Your task to perform on an android device: Open Amazon Image 0: 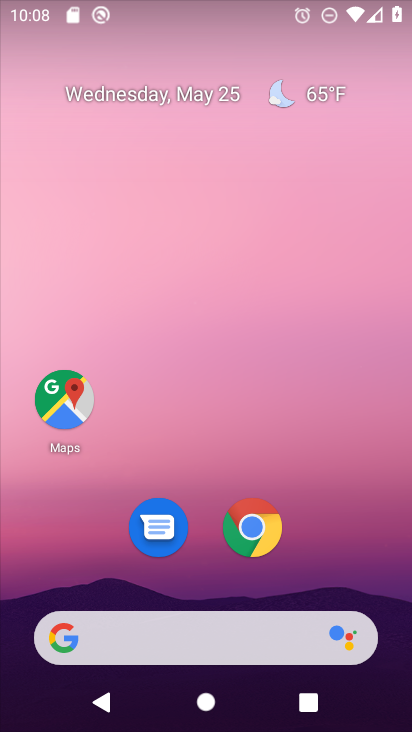
Step 0: click (250, 528)
Your task to perform on an android device: Open Amazon Image 1: 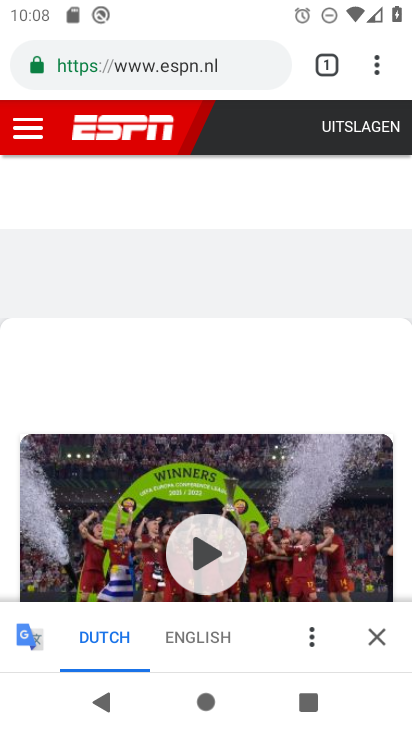
Step 1: click (268, 60)
Your task to perform on an android device: Open Amazon Image 2: 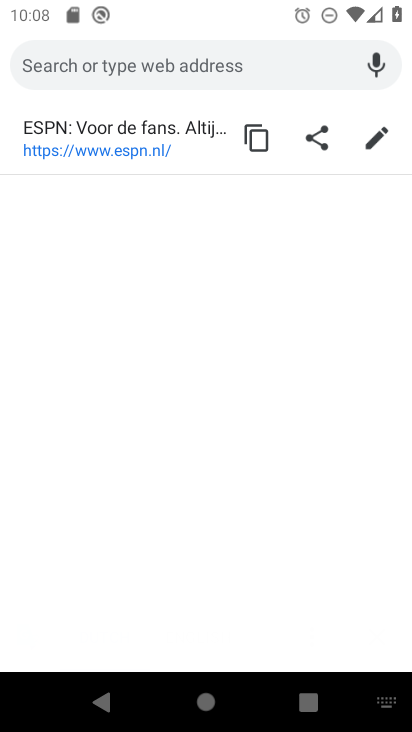
Step 2: type "Amazon"
Your task to perform on an android device: Open Amazon Image 3: 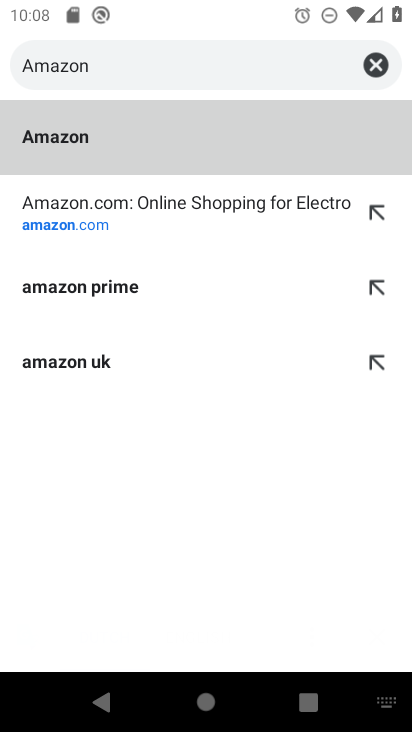
Step 3: click (278, 142)
Your task to perform on an android device: Open Amazon Image 4: 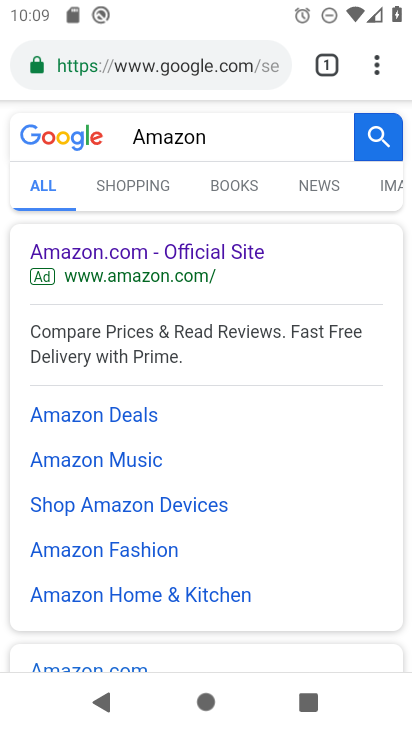
Step 4: click (223, 260)
Your task to perform on an android device: Open Amazon Image 5: 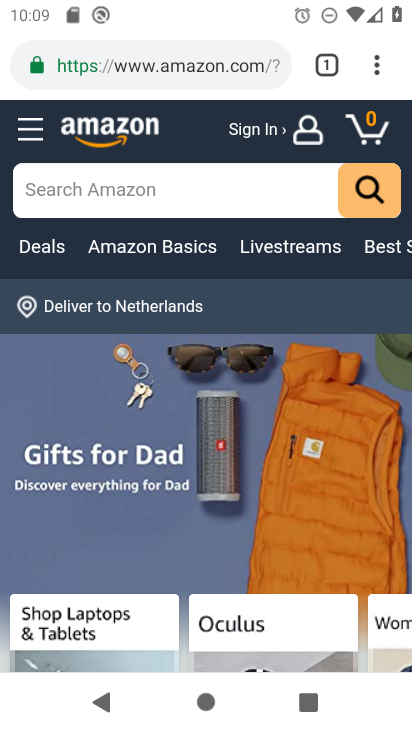
Step 5: task complete